Your task to perform on an android device: open app "Google Photos" Image 0: 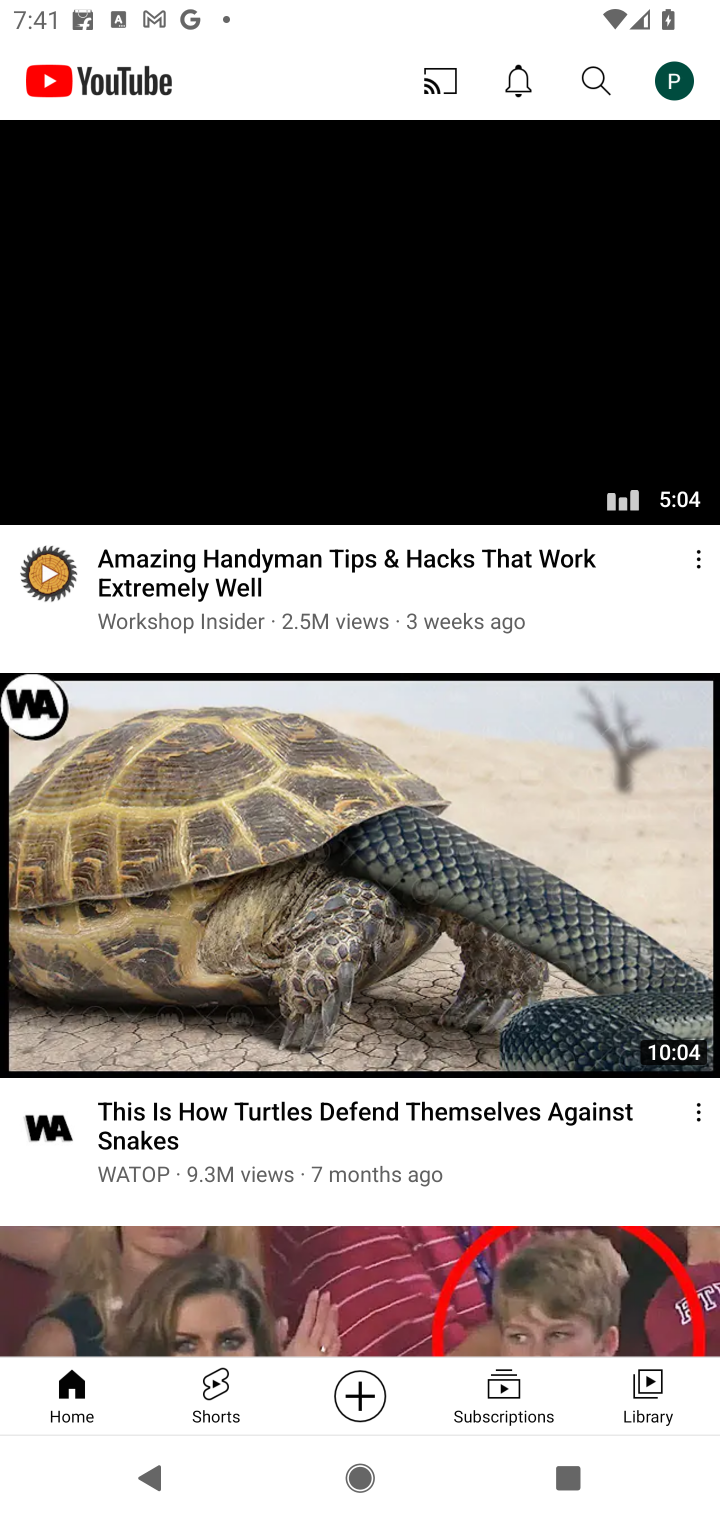
Step 0: press home button
Your task to perform on an android device: open app "Google Photos" Image 1: 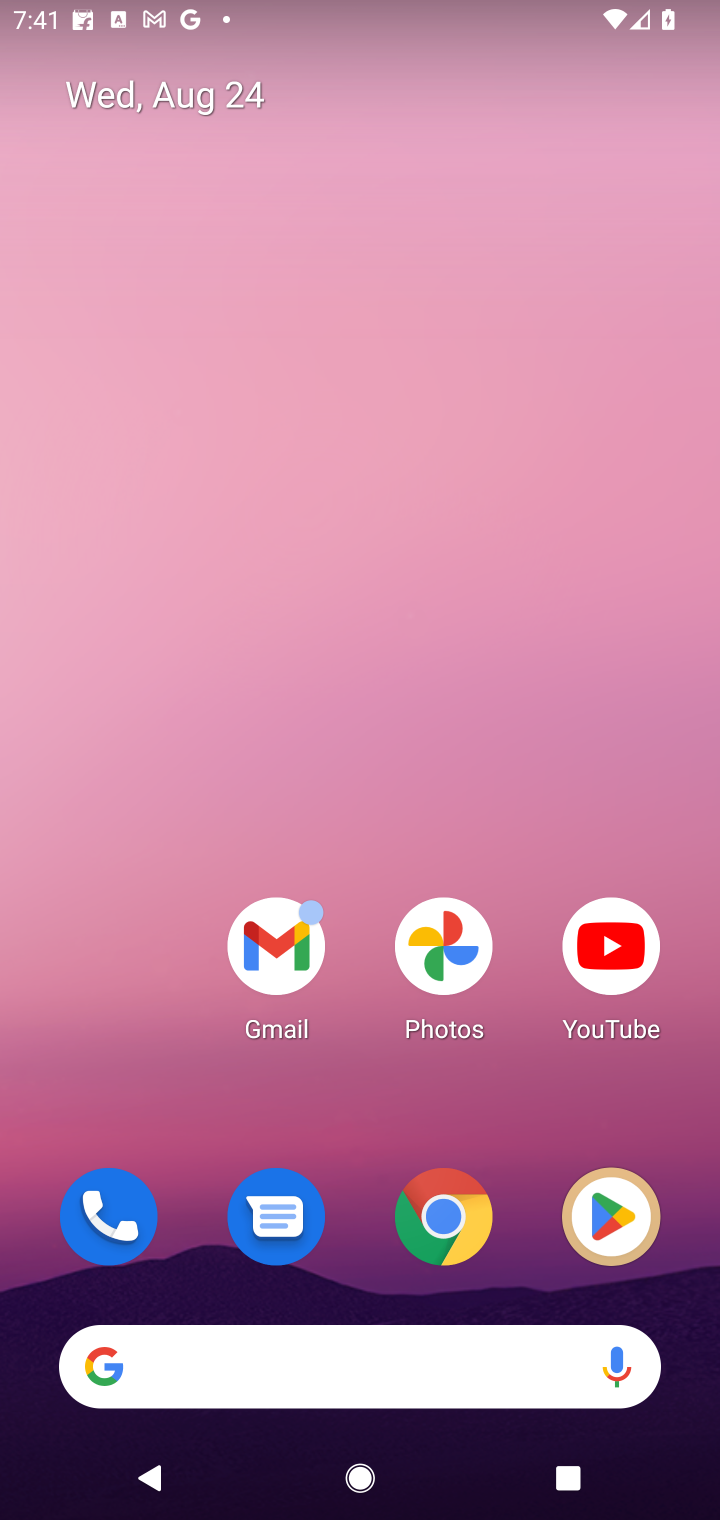
Step 1: click (580, 1211)
Your task to perform on an android device: open app "Google Photos" Image 2: 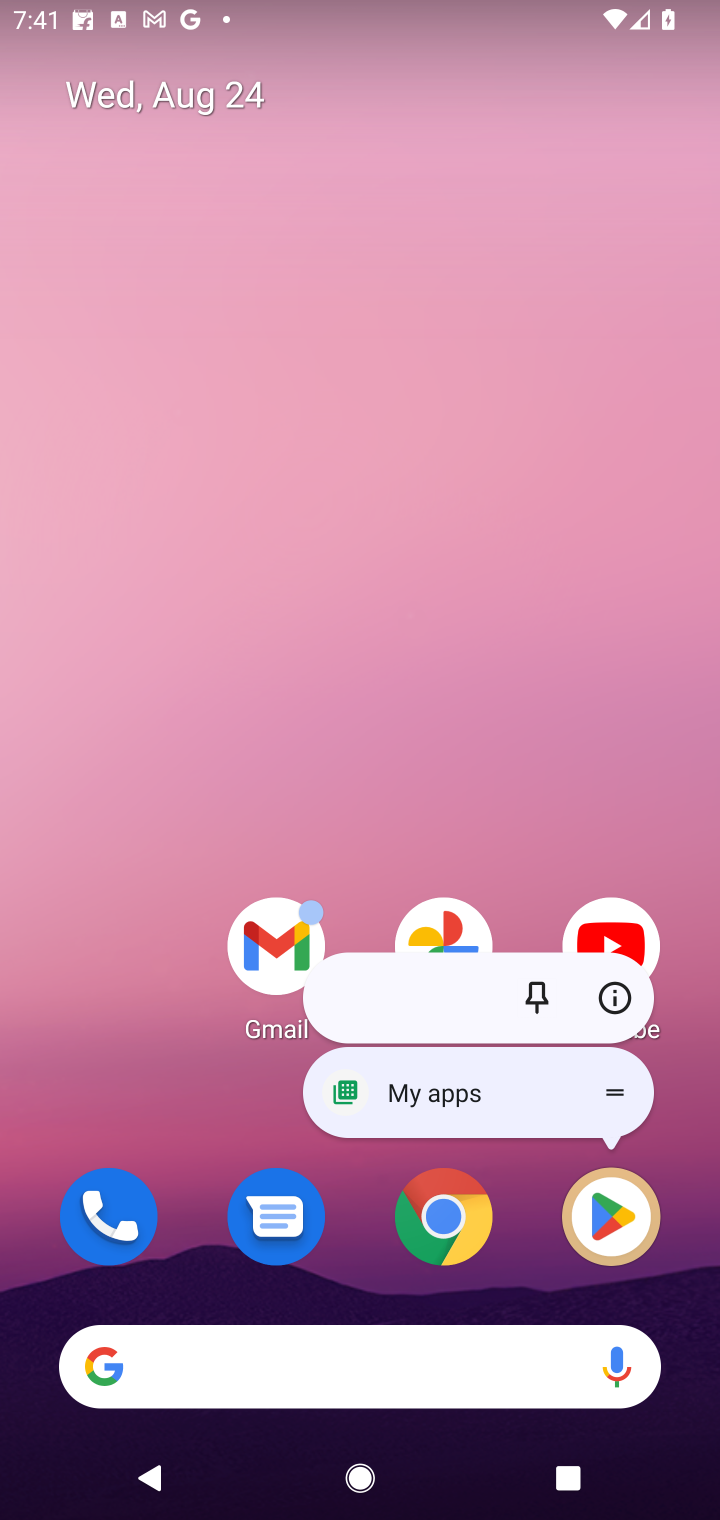
Step 2: click (618, 1208)
Your task to perform on an android device: open app "Google Photos" Image 3: 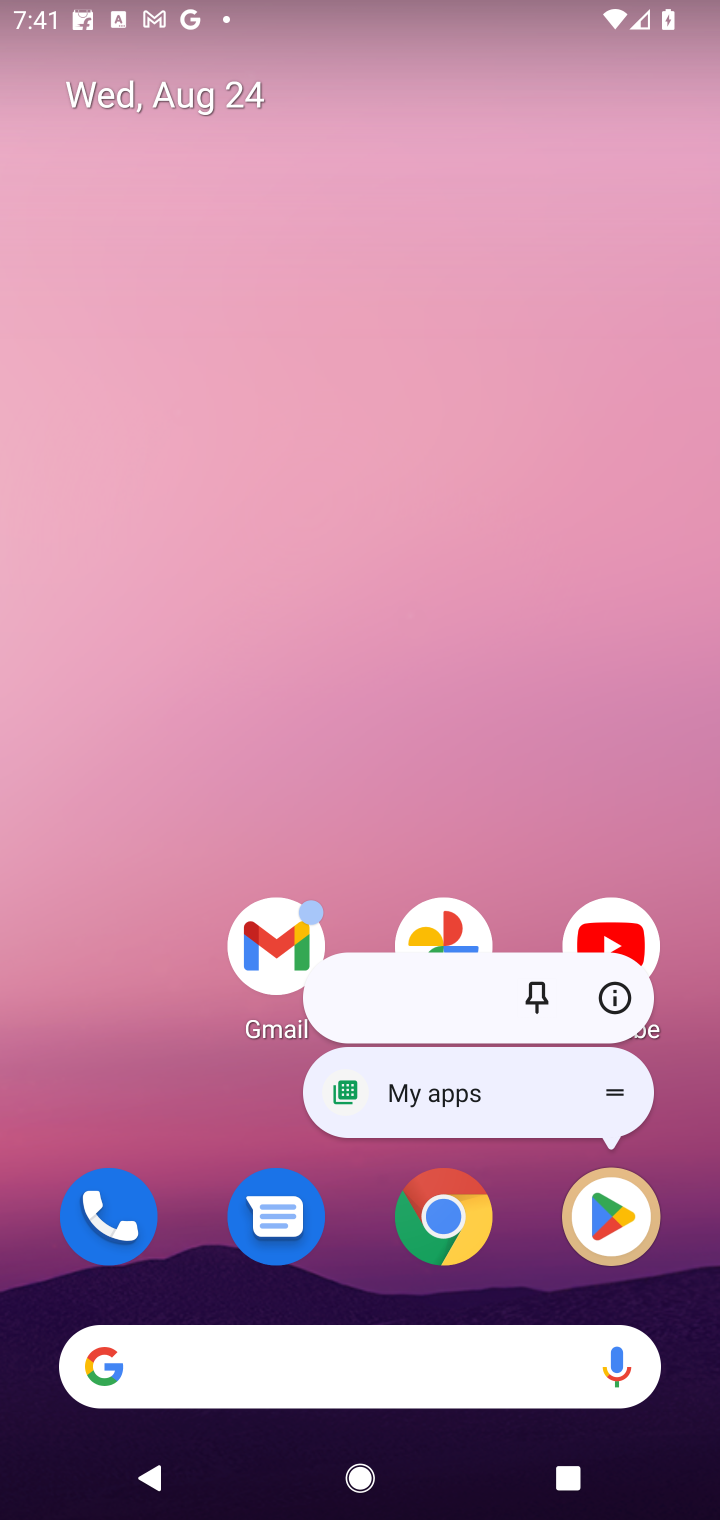
Step 3: click (599, 1184)
Your task to perform on an android device: open app "Google Photos" Image 4: 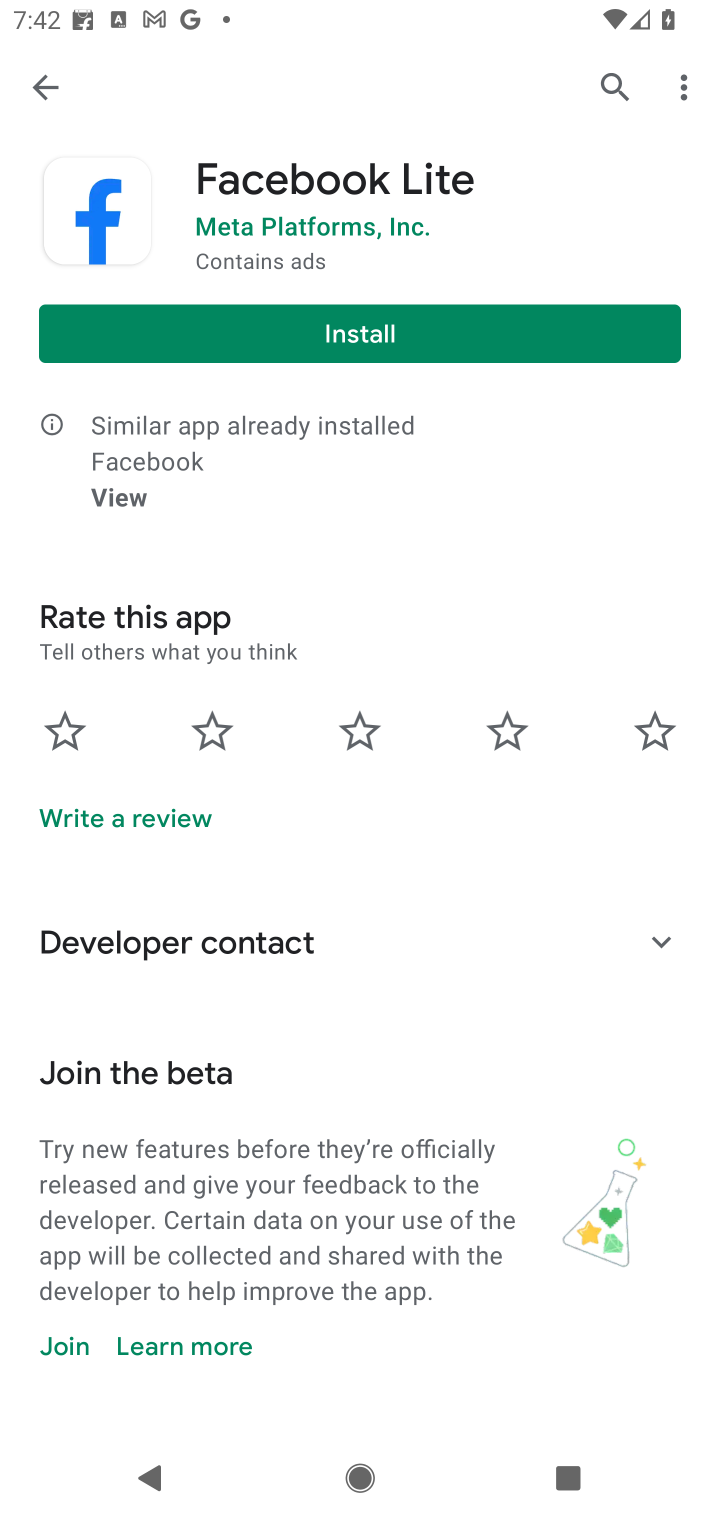
Step 4: click (612, 70)
Your task to perform on an android device: open app "Google Photos" Image 5: 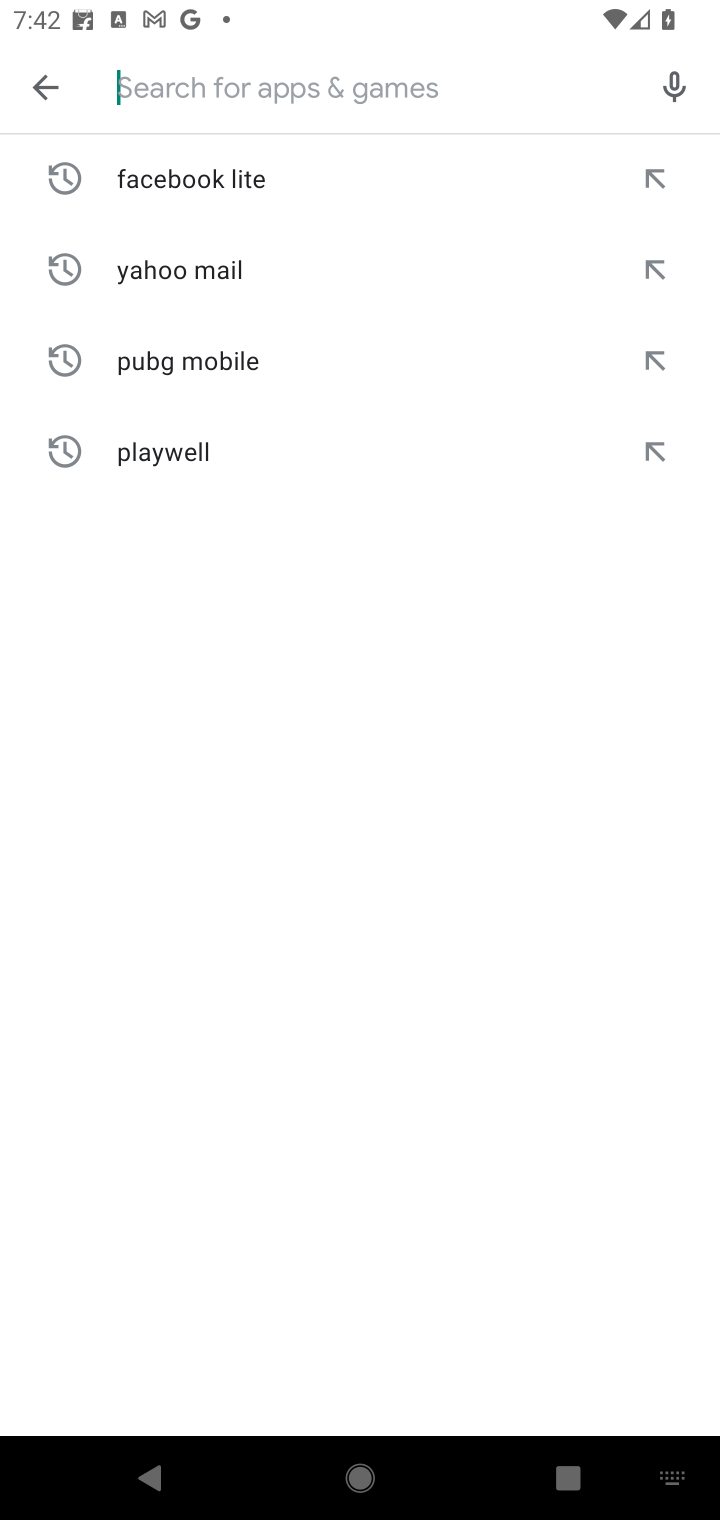
Step 5: type "Google Photos"
Your task to perform on an android device: open app "Google Photos" Image 6: 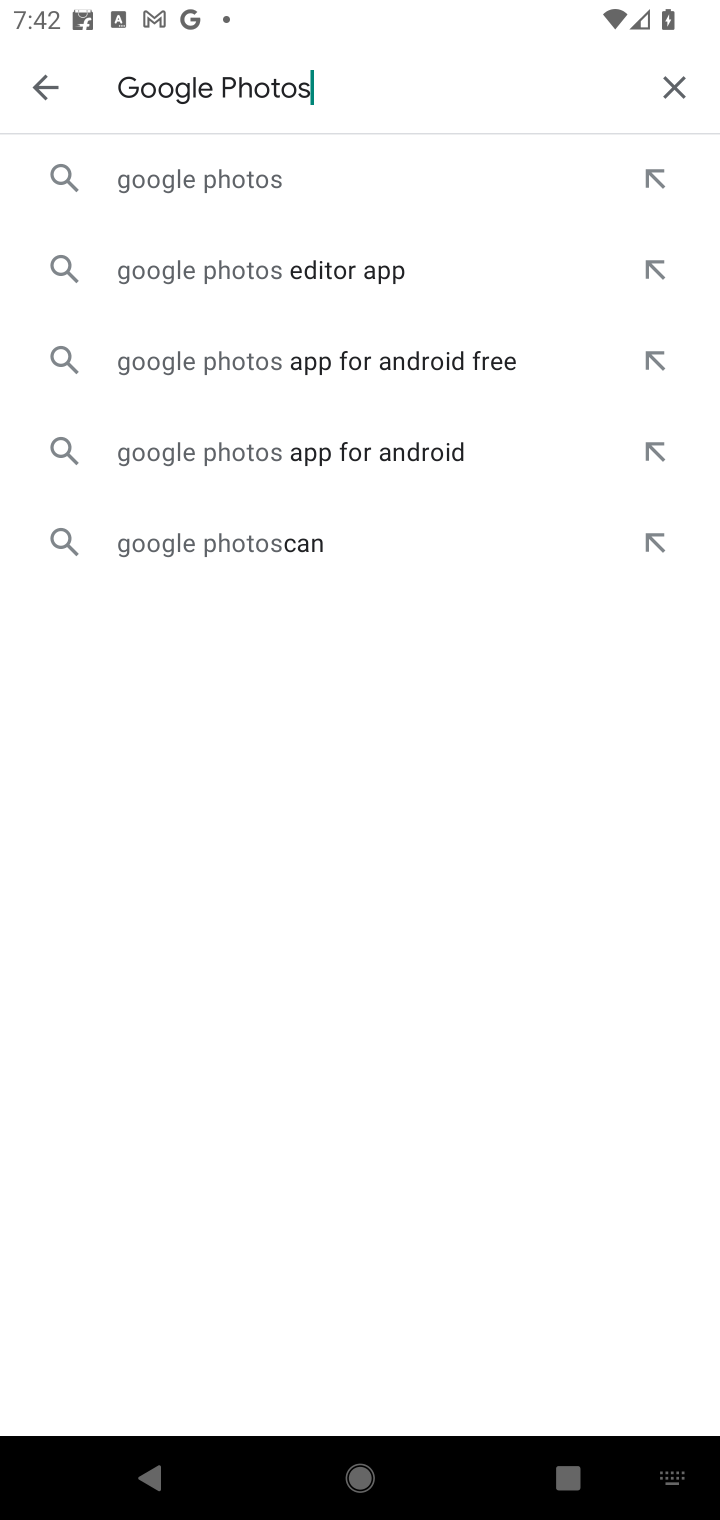
Step 6: click (288, 179)
Your task to perform on an android device: open app "Google Photos" Image 7: 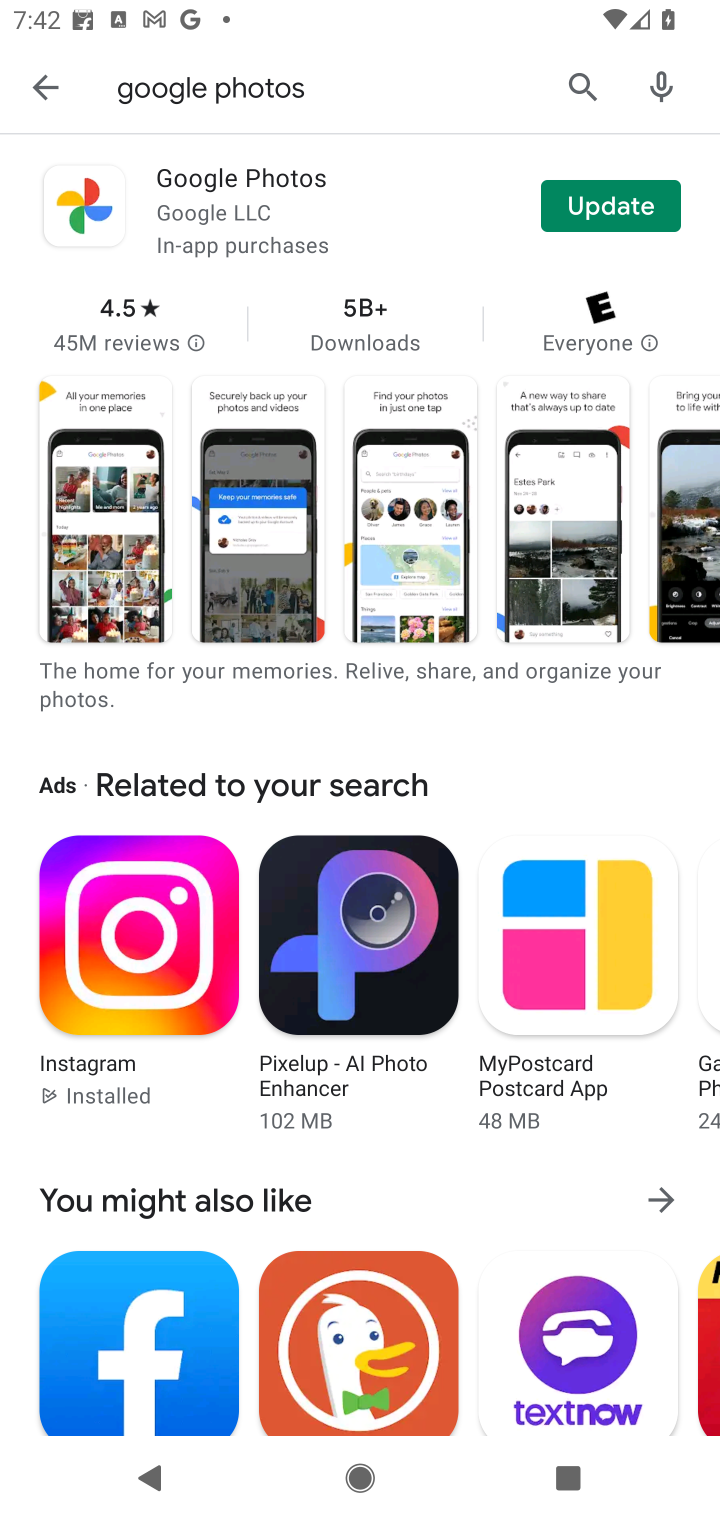
Step 7: click (358, 222)
Your task to perform on an android device: open app "Google Photos" Image 8: 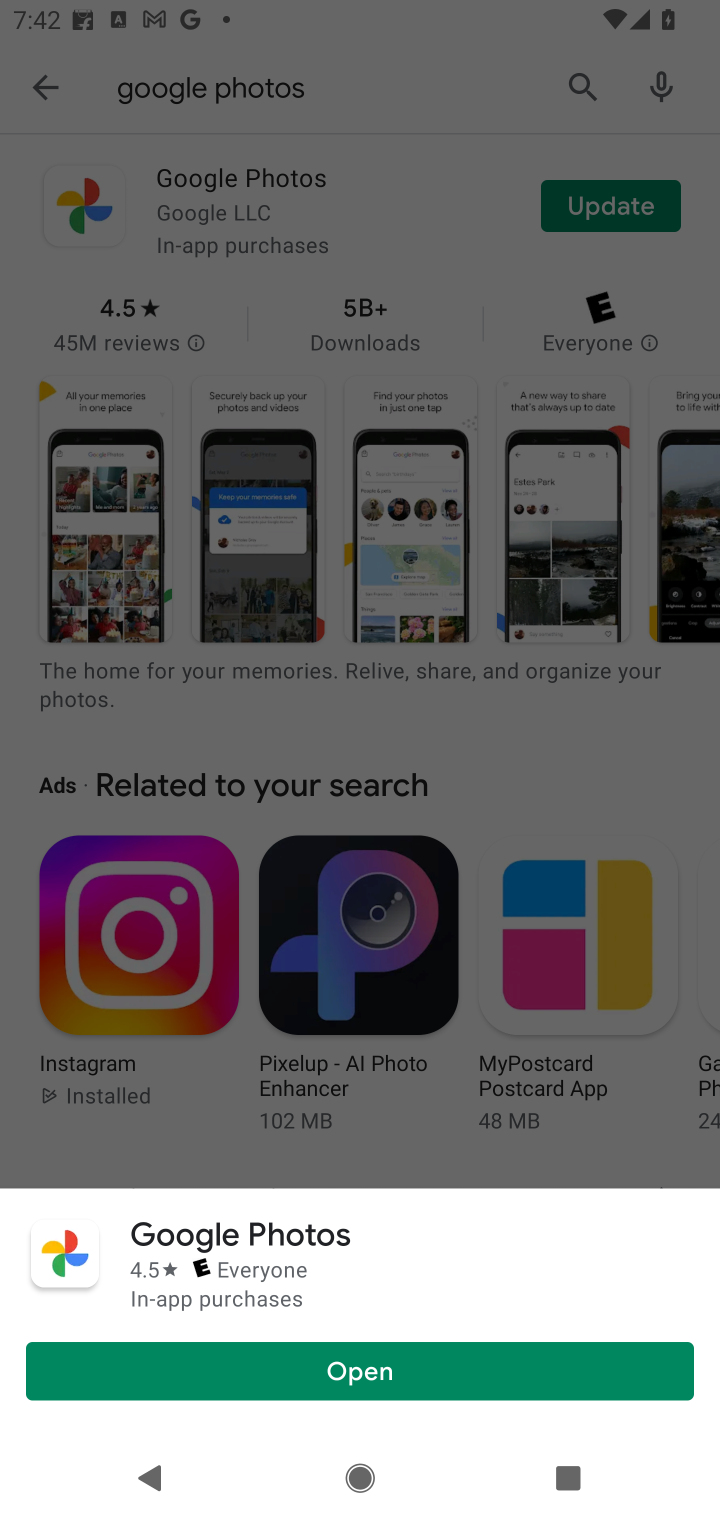
Step 8: click (378, 1359)
Your task to perform on an android device: open app "Google Photos" Image 9: 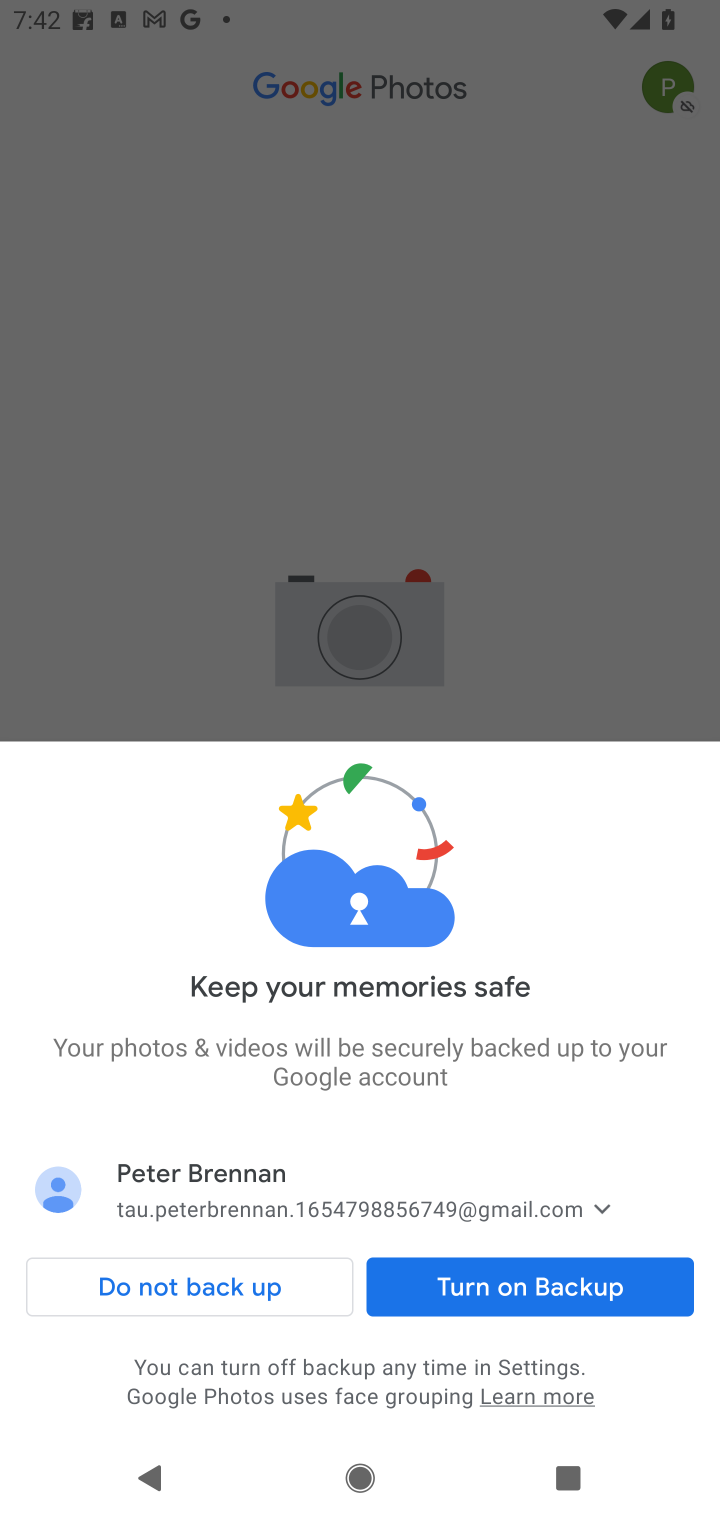
Step 9: task complete